Your task to perform on an android device: read, delete, or share a saved page in the chrome app Image 0: 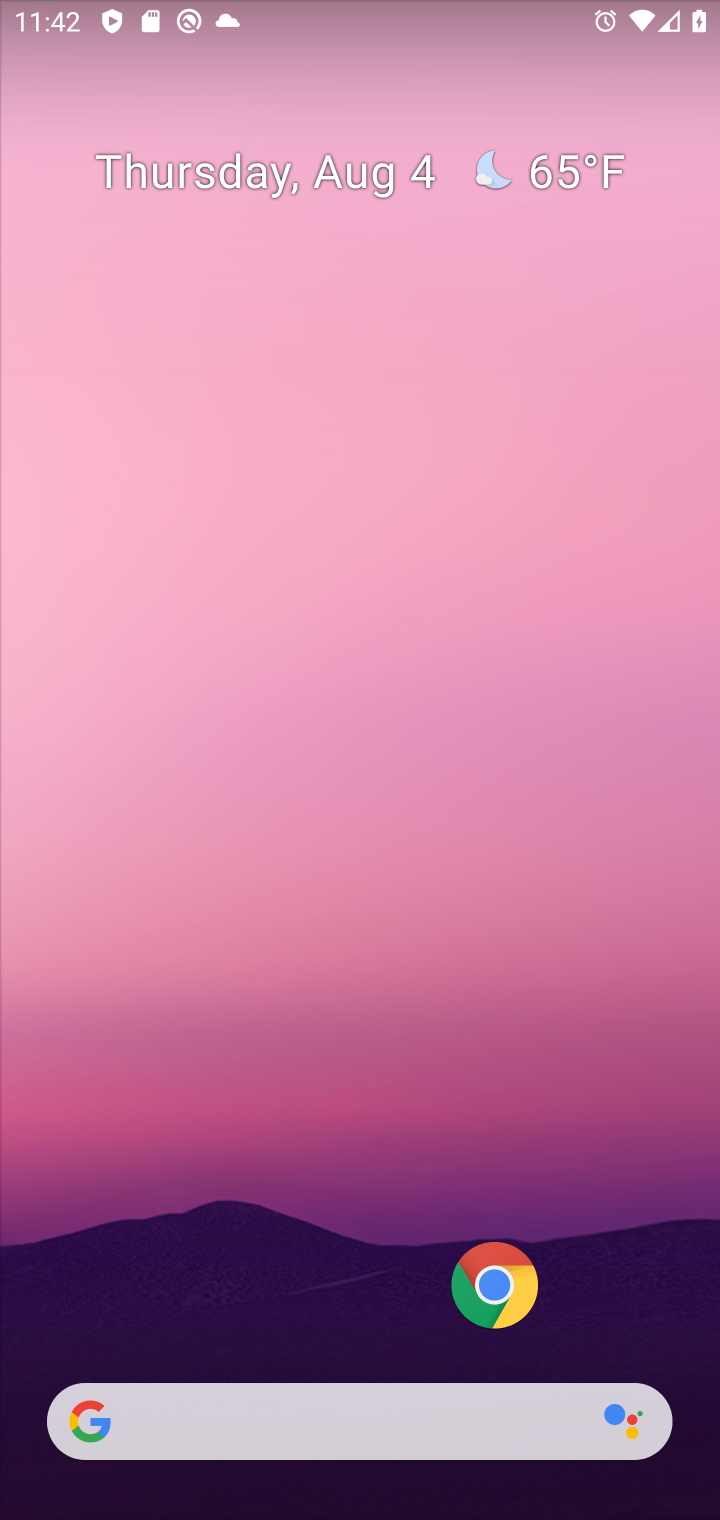
Step 0: click (484, 1333)
Your task to perform on an android device: read, delete, or share a saved page in the chrome app Image 1: 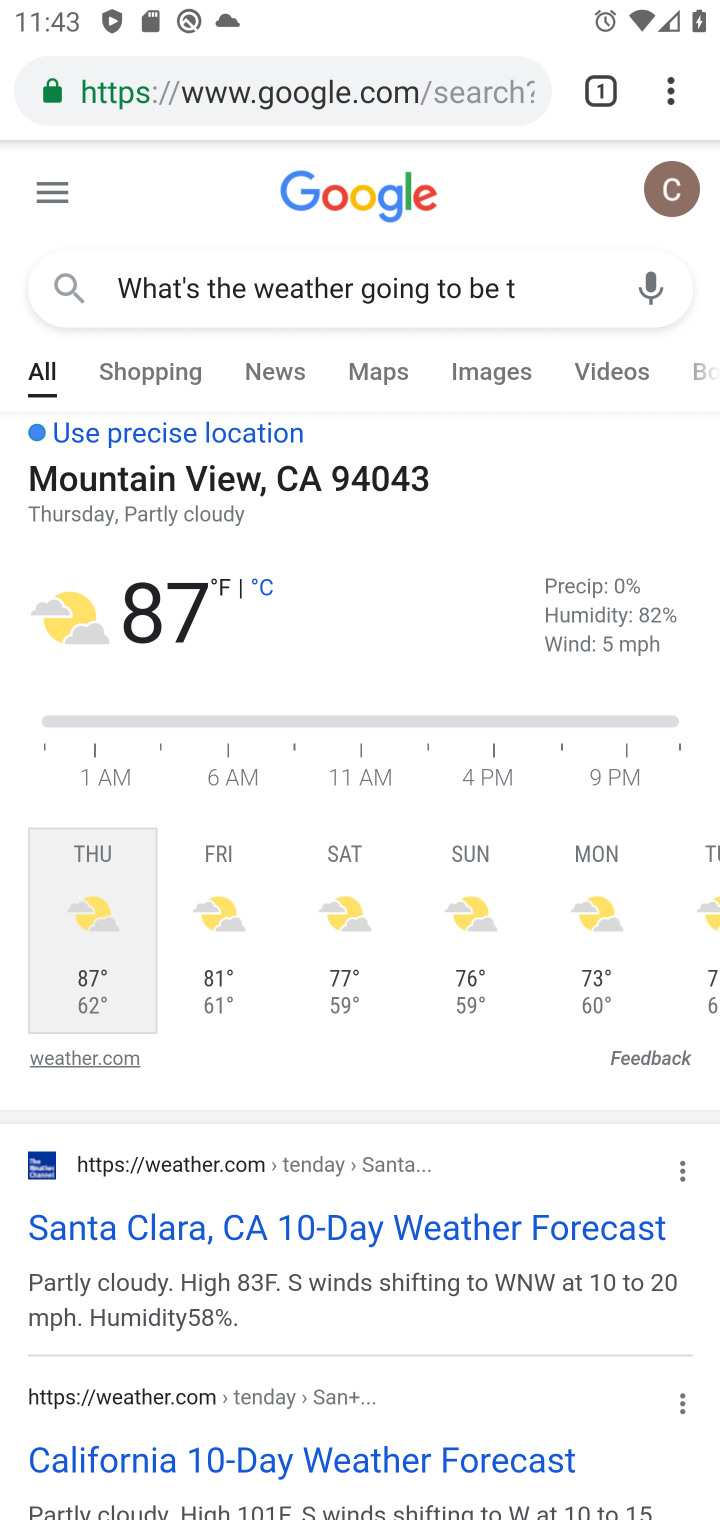
Step 1: drag from (669, 98) to (468, 691)
Your task to perform on an android device: read, delete, or share a saved page in the chrome app Image 2: 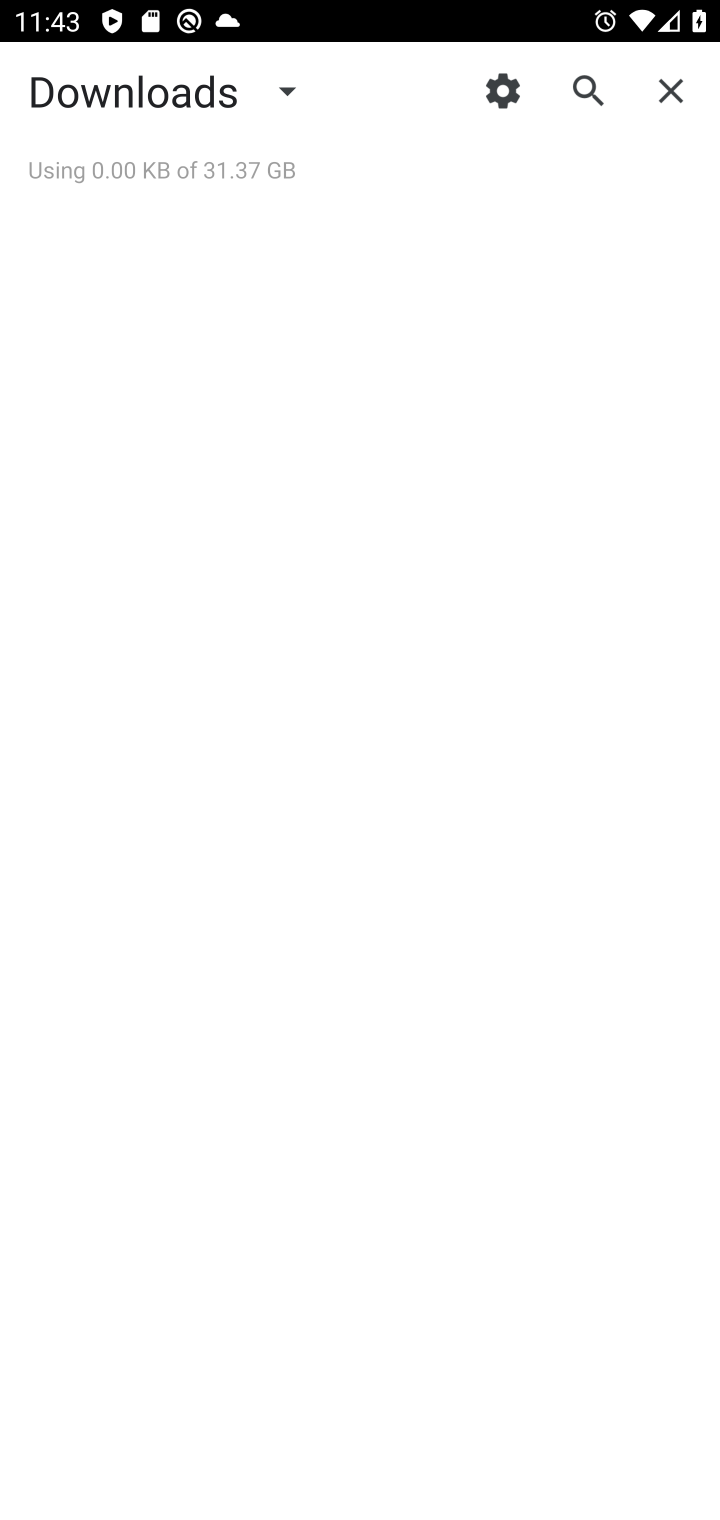
Step 2: click (286, 99)
Your task to perform on an android device: read, delete, or share a saved page in the chrome app Image 3: 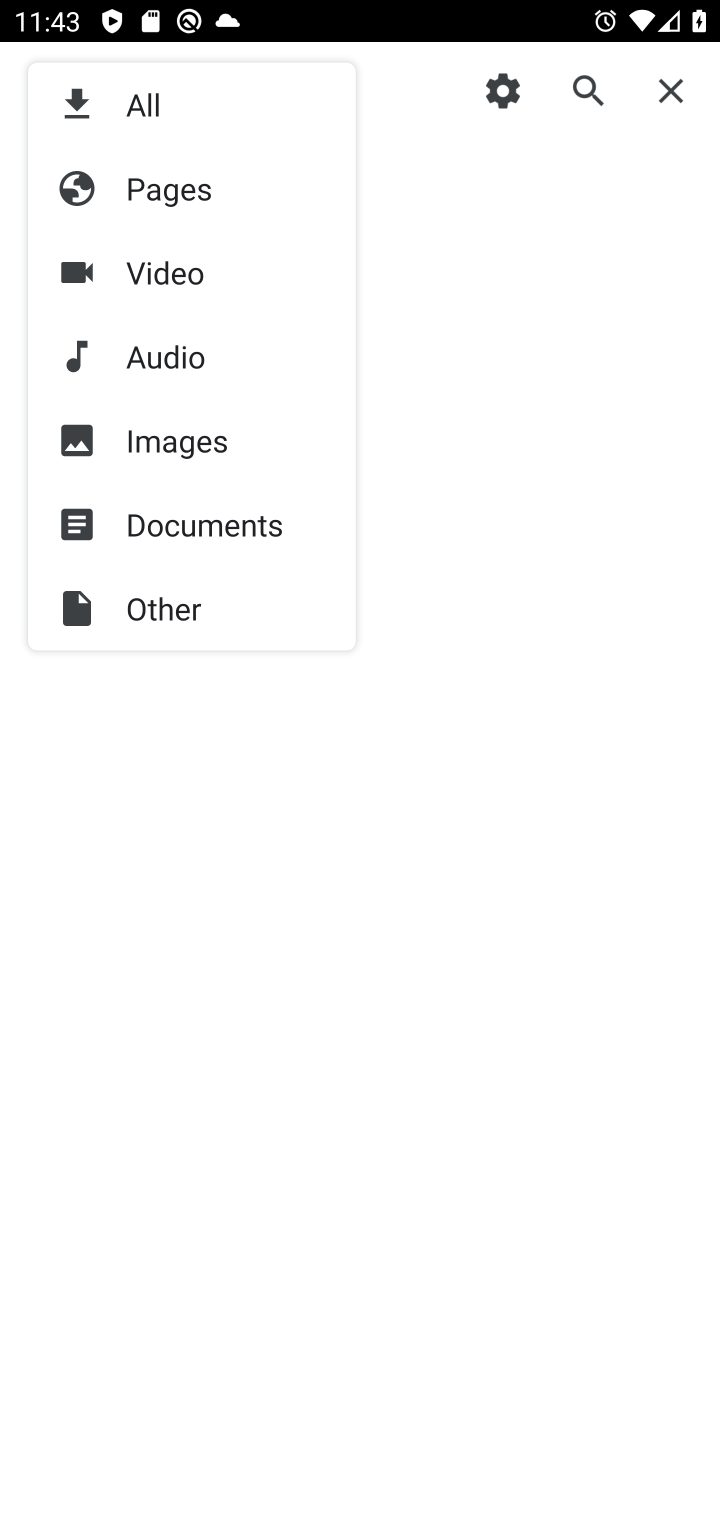
Step 3: click (175, 199)
Your task to perform on an android device: read, delete, or share a saved page in the chrome app Image 4: 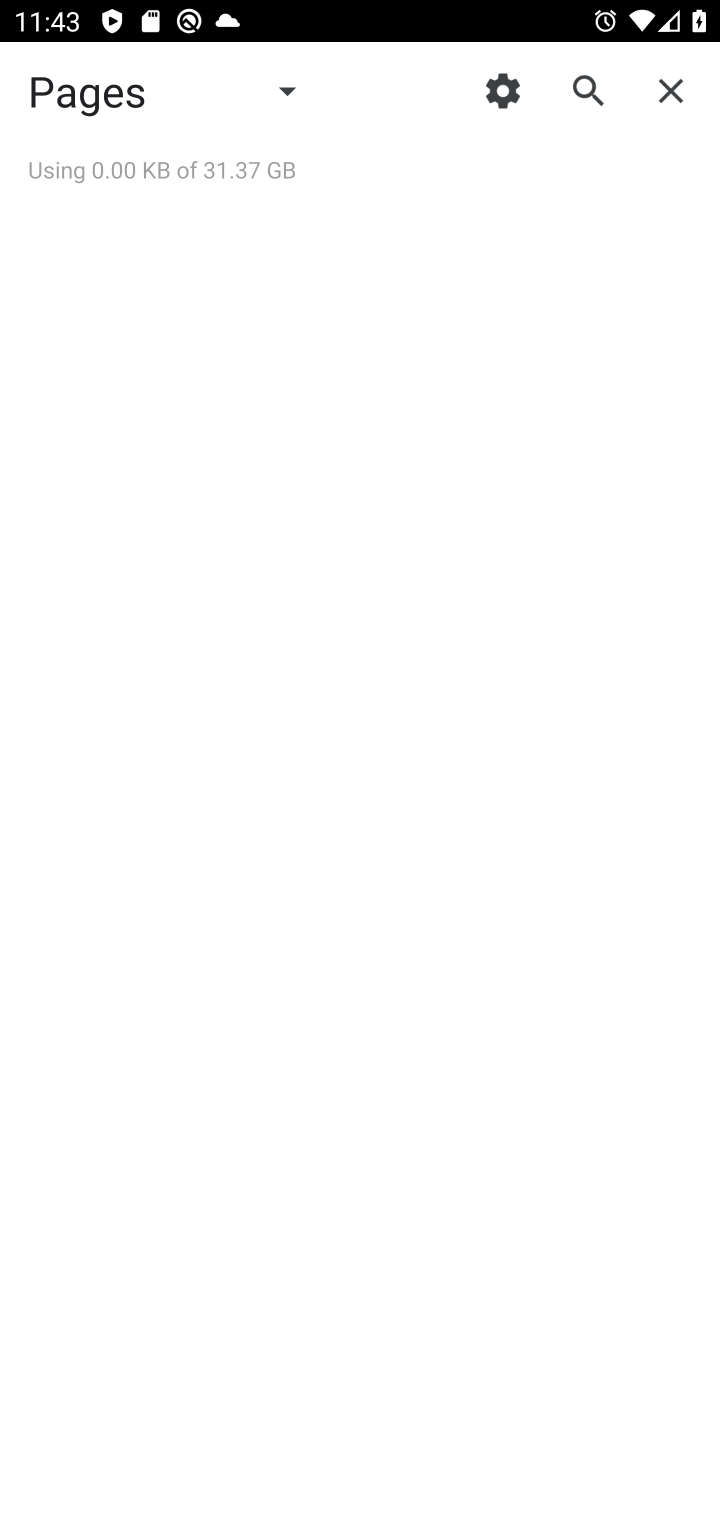
Step 4: task complete